Your task to perform on an android device: Search for Italian restaurants on Maps Image 0: 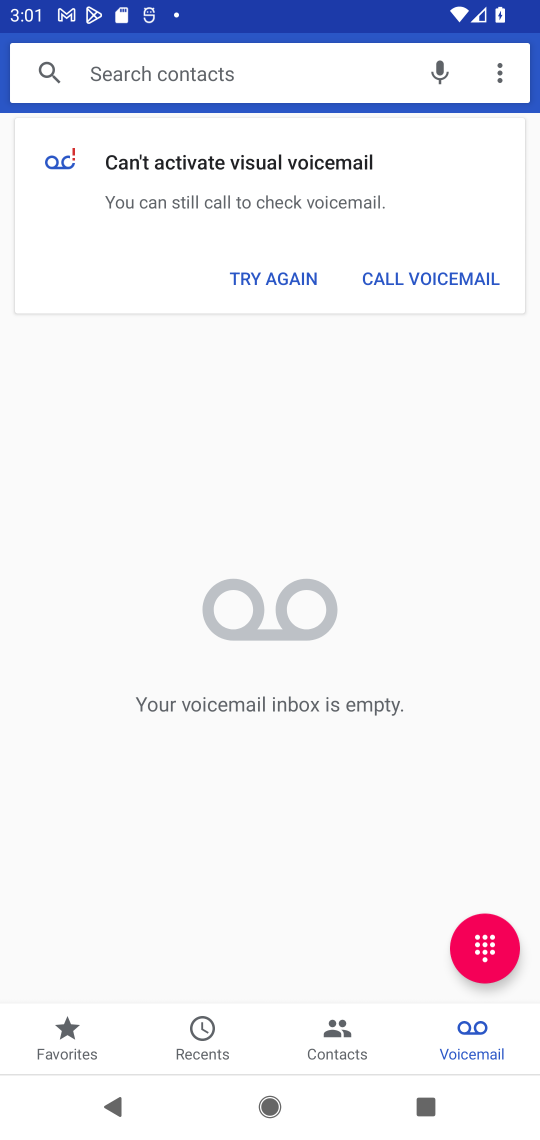
Step 0: task complete